Your task to perform on an android device: Find coffee shops on Maps Image 0: 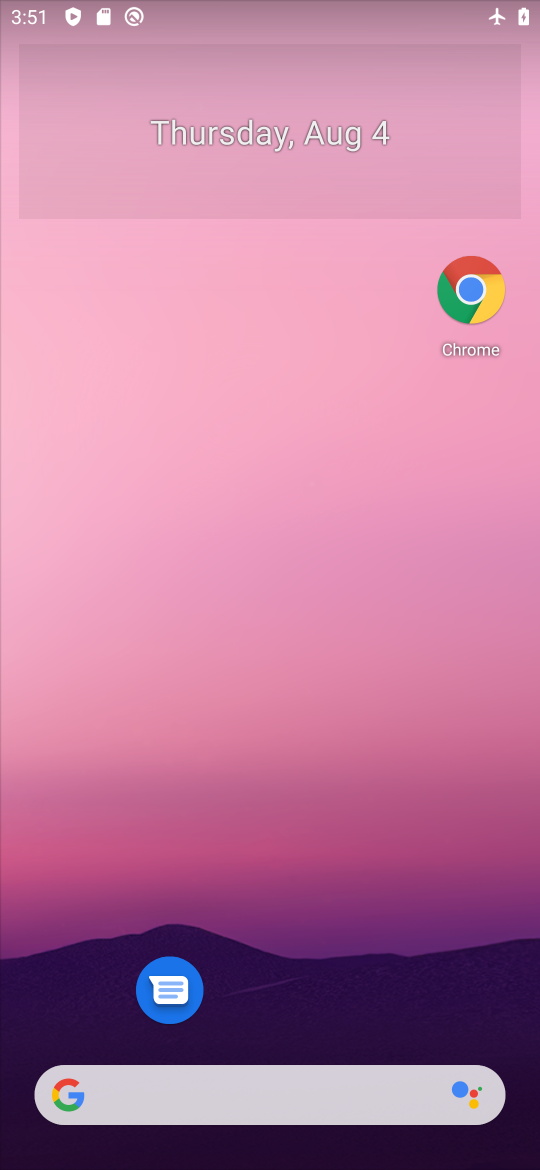
Step 0: drag from (374, 1026) to (358, 94)
Your task to perform on an android device: Find coffee shops on Maps Image 1: 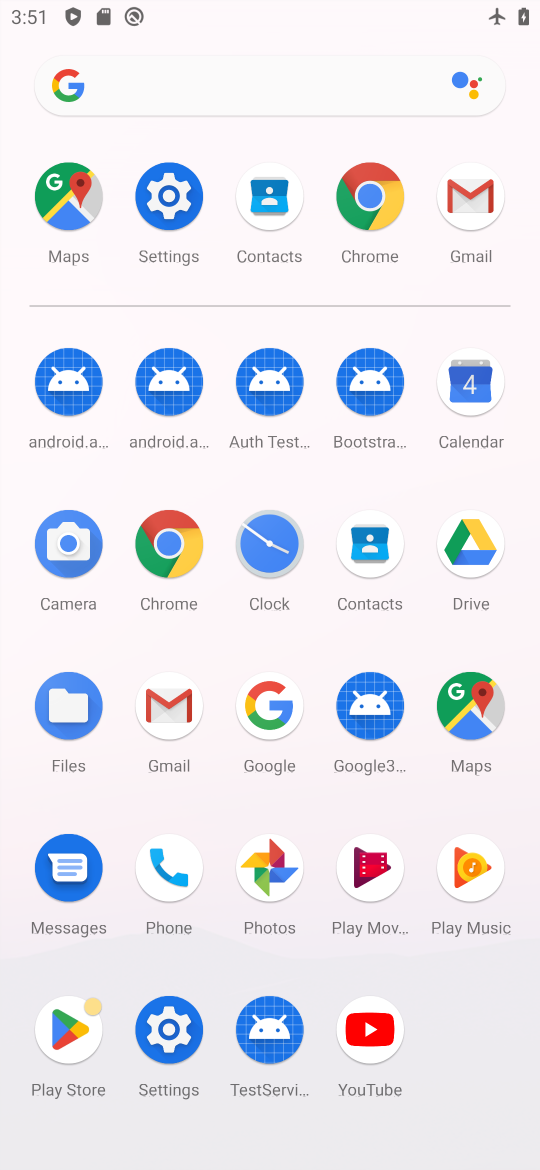
Step 1: click (447, 728)
Your task to perform on an android device: Find coffee shops on Maps Image 2: 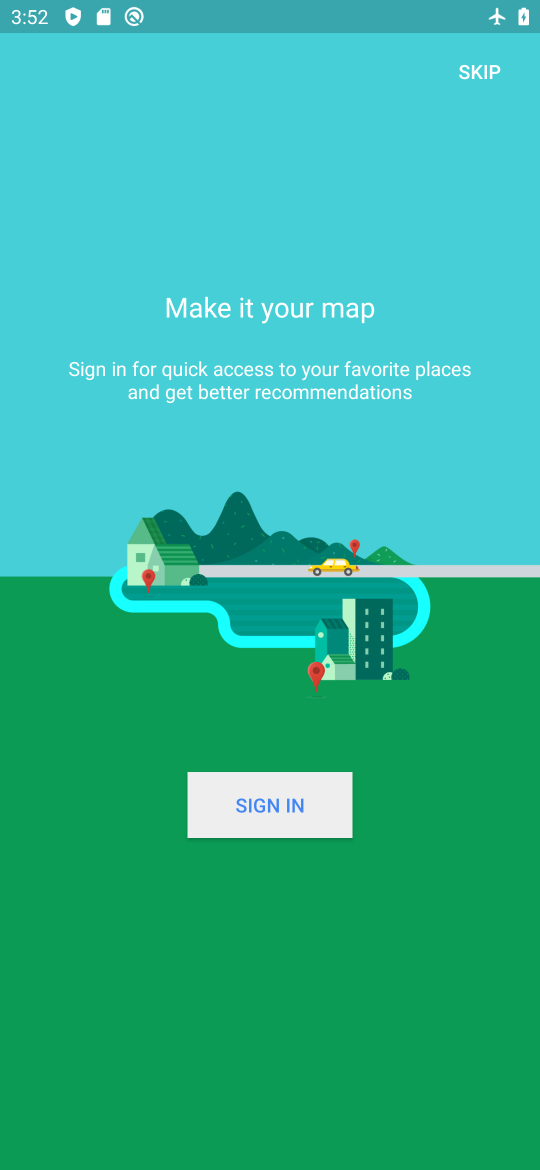
Step 2: click (466, 54)
Your task to perform on an android device: Find coffee shops on Maps Image 3: 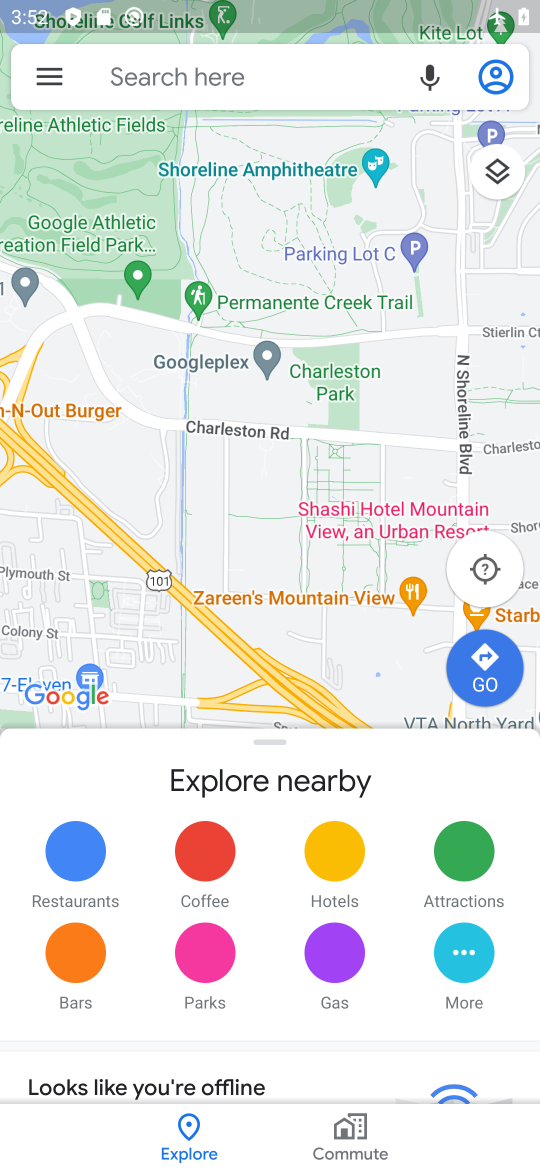
Step 3: click (33, 81)
Your task to perform on an android device: Find coffee shops on Maps Image 4: 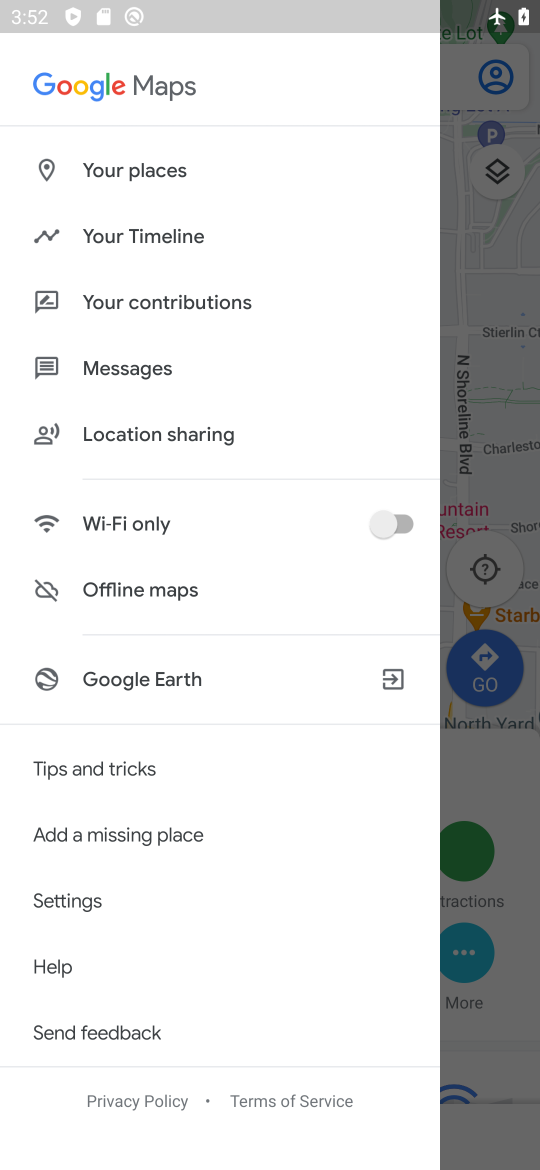
Step 4: task complete